Your task to perform on an android device: all mails in gmail Image 0: 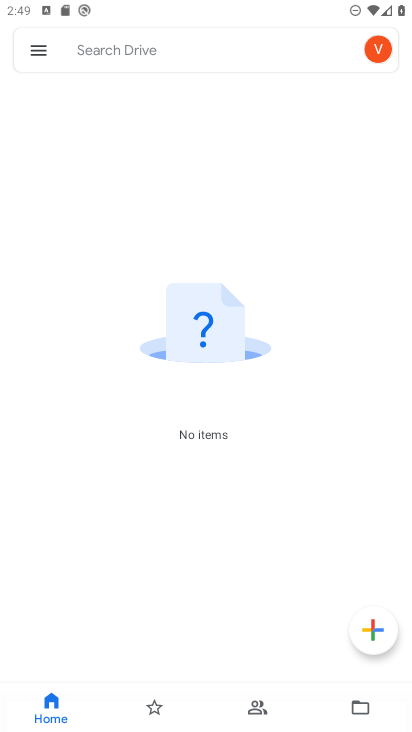
Step 0: press home button
Your task to perform on an android device: all mails in gmail Image 1: 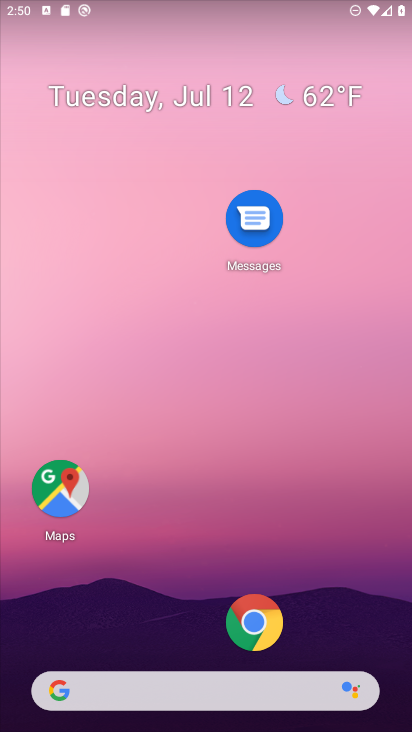
Step 1: drag from (183, 640) to (220, 203)
Your task to perform on an android device: all mails in gmail Image 2: 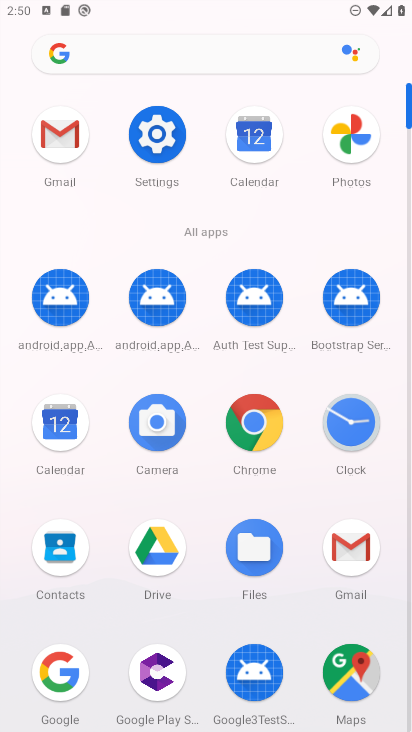
Step 2: click (60, 120)
Your task to perform on an android device: all mails in gmail Image 3: 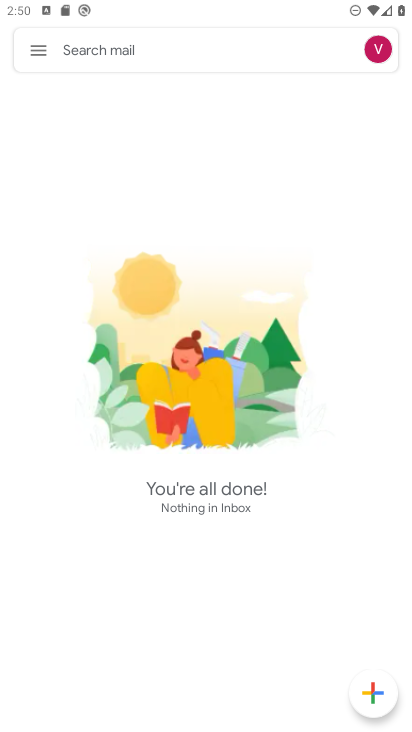
Step 3: click (30, 48)
Your task to perform on an android device: all mails in gmail Image 4: 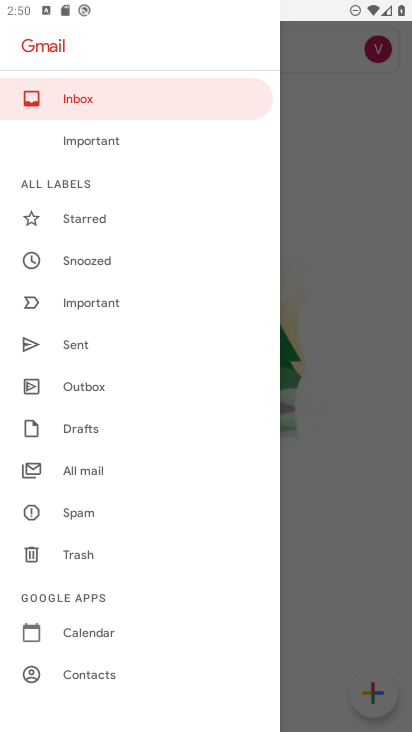
Step 4: click (100, 466)
Your task to perform on an android device: all mails in gmail Image 5: 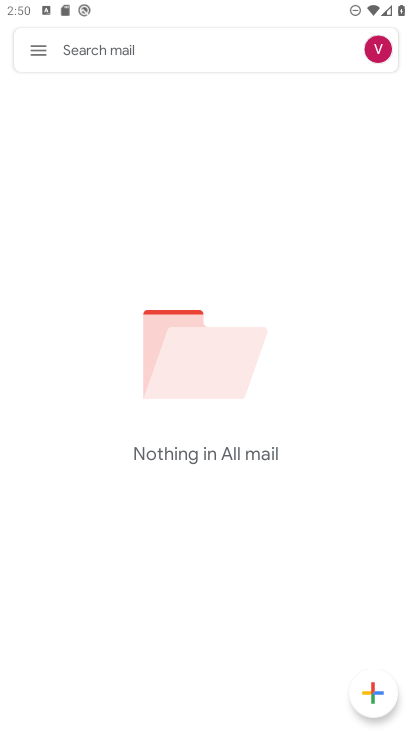
Step 5: task complete